Your task to perform on an android device: Play the last video I watched on Youtube Image 0: 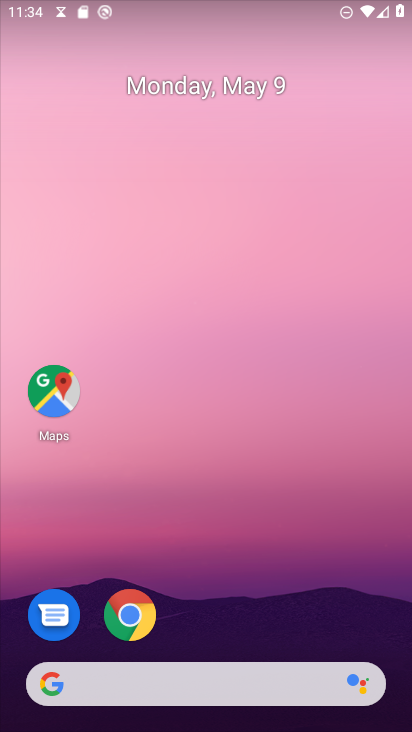
Step 0: drag from (245, 724) to (239, 175)
Your task to perform on an android device: Play the last video I watched on Youtube Image 1: 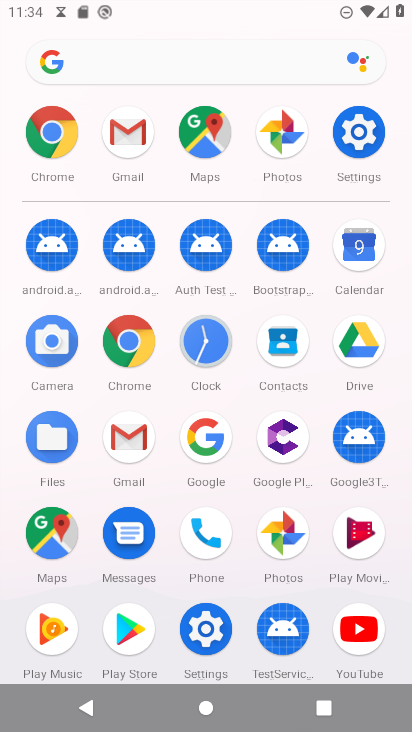
Step 1: click (364, 625)
Your task to perform on an android device: Play the last video I watched on Youtube Image 2: 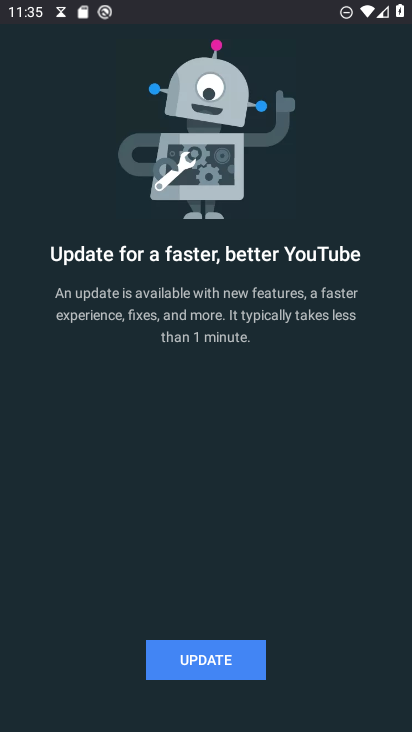
Step 2: task complete